Your task to perform on an android device: Clear the shopping cart on newegg. Search for "acer predator" on newegg, select the first entry, add it to the cart, then select checkout. Image 0: 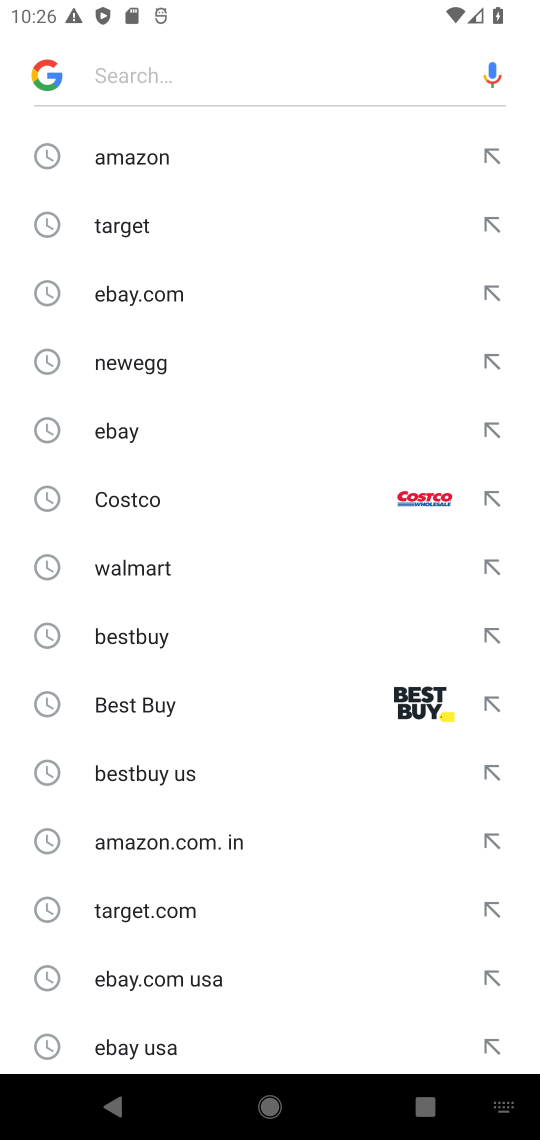
Step 0: press home button
Your task to perform on an android device: Clear the shopping cart on newegg. Search for "acer predator" on newegg, select the first entry, add it to the cart, then select checkout. Image 1: 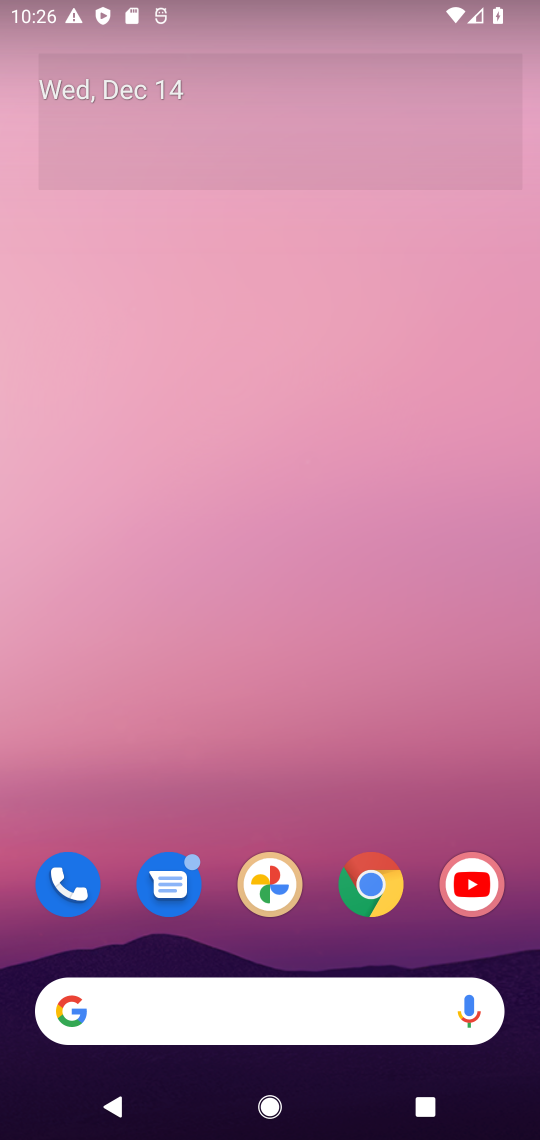
Step 1: click (389, 876)
Your task to perform on an android device: Clear the shopping cart on newegg. Search for "acer predator" on newegg, select the first entry, add it to the cart, then select checkout. Image 2: 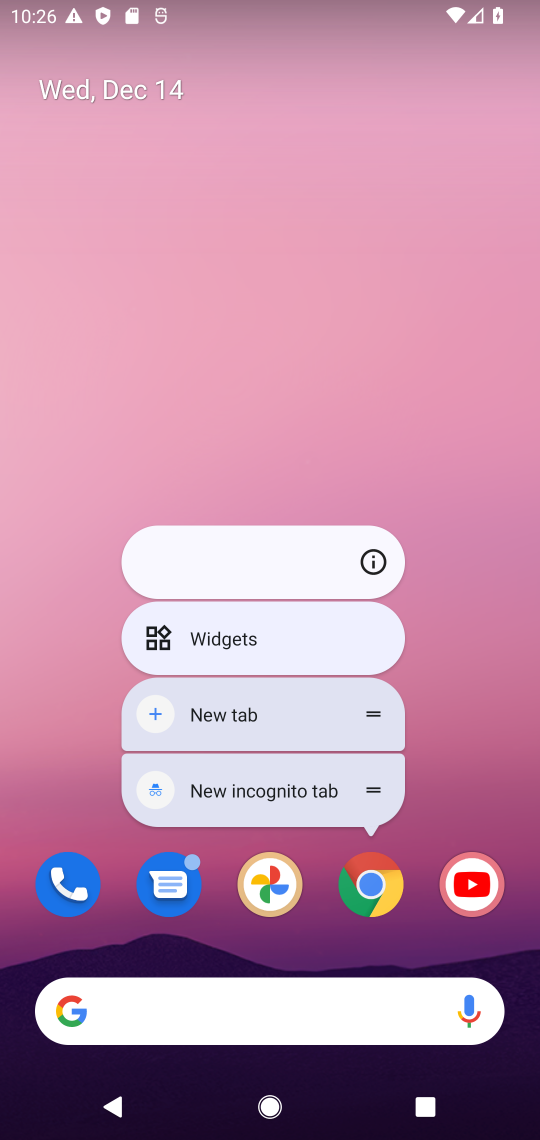
Step 2: click (369, 880)
Your task to perform on an android device: Clear the shopping cart on newegg. Search for "acer predator" on newegg, select the first entry, add it to the cart, then select checkout. Image 3: 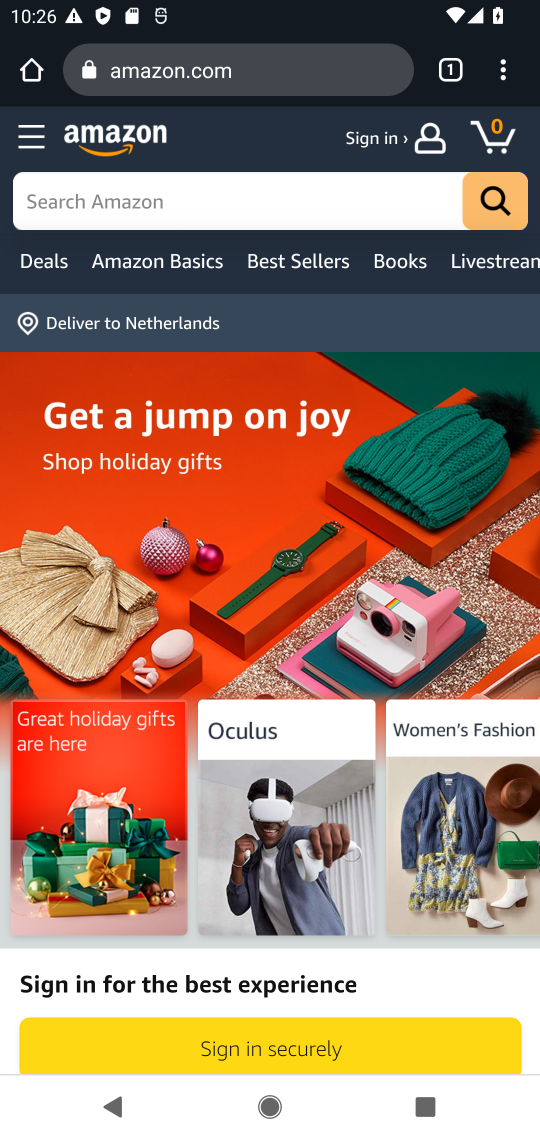
Step 3: click (287, 88)
Your task to perform on an android device: Clear the shopping cart on newegg. Search for "acer predator" on newegg, select the first entry, add it to the cart, then select checkout. Image 4: 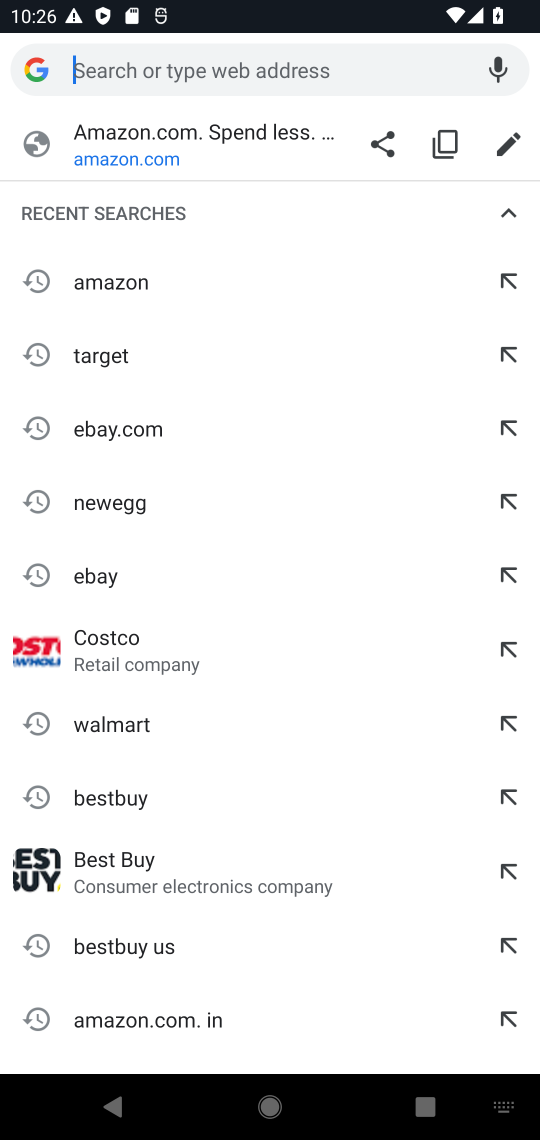
Step 4: press enter
Your task to perform on an android device: Clear the shopping cart on newegg. Search for "acer predator" on newegg, select the first entry, add it to the cart, then select checkout. Image 5: 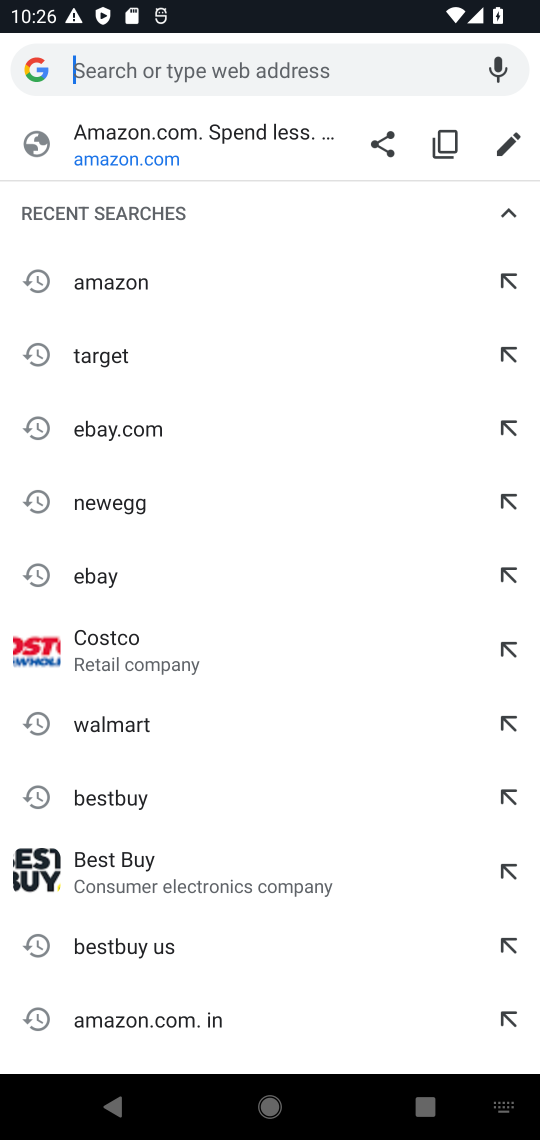
Step 5: type "newegg"
Your task to perform on an android device: Clear the shopping cart on newegg. Search for "acer predator" on newegg, select the first entry, add it to the cart, then select checkout. Image 6: 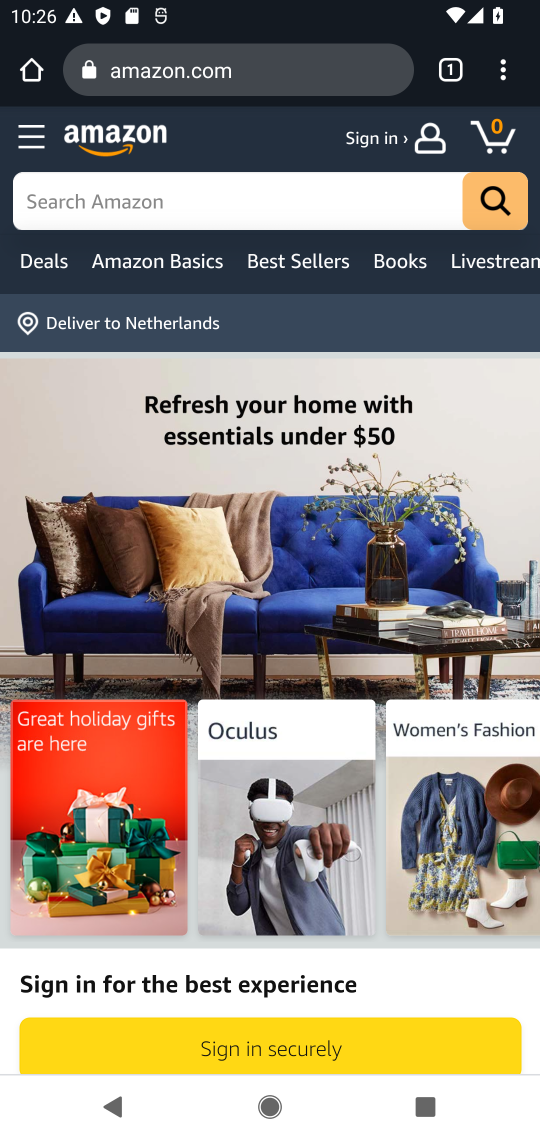
Step 6: click (31, 71)
Your task to perform on an android device: Clear the shopping cart on newegg. Search for "acer predator" on newegg, select the first entry, add it to the cart, then select checkout. Image 7: 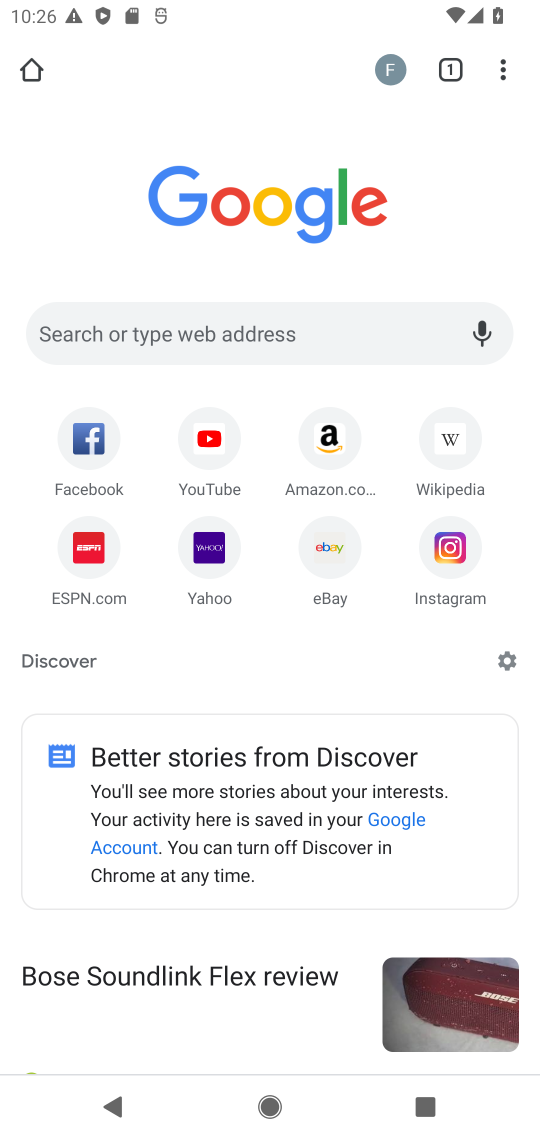
Step 7: click (363, 352)
Your task to perform on an android device: Clear the shopping cart on newegg. Search for "acer predator" on newegg, select the first entry, add it to the cart, then select checkout. Image 8: 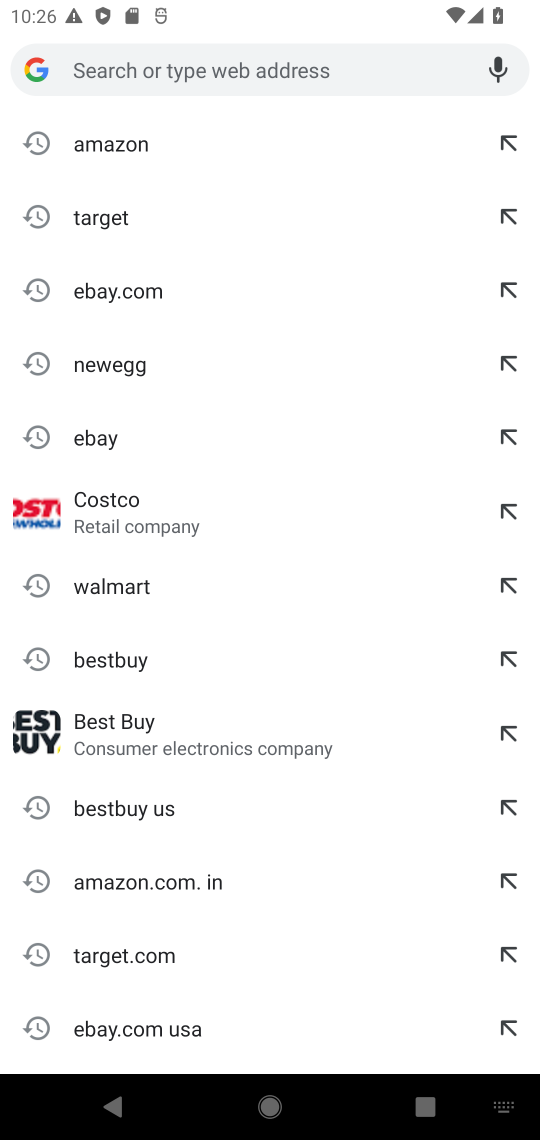
Step 8: click (126, 369)
Your task to perform on an android device: Clear the shopping cart on newegg. Search for "acer predator" on newegg, select the first entry, add it to the cart, then select checkout. Image 9: 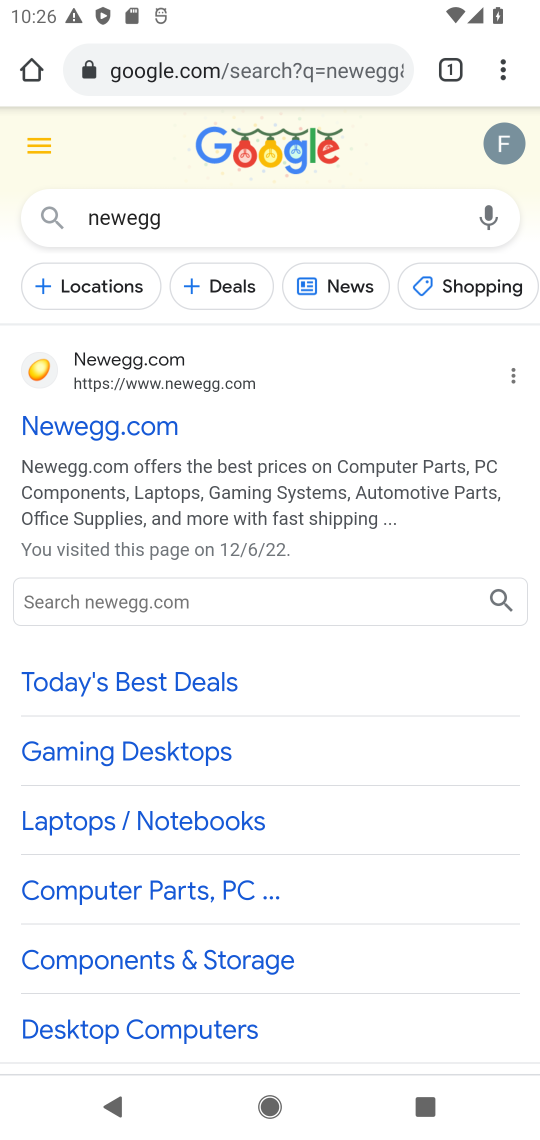
Step 9: click (177, 381)
Your task to perform on an android device: Clear the shopping cart on newegg. Search for "acer predator" on newegg, select the first entry, add it to the cart, then select checkout. Image 10: 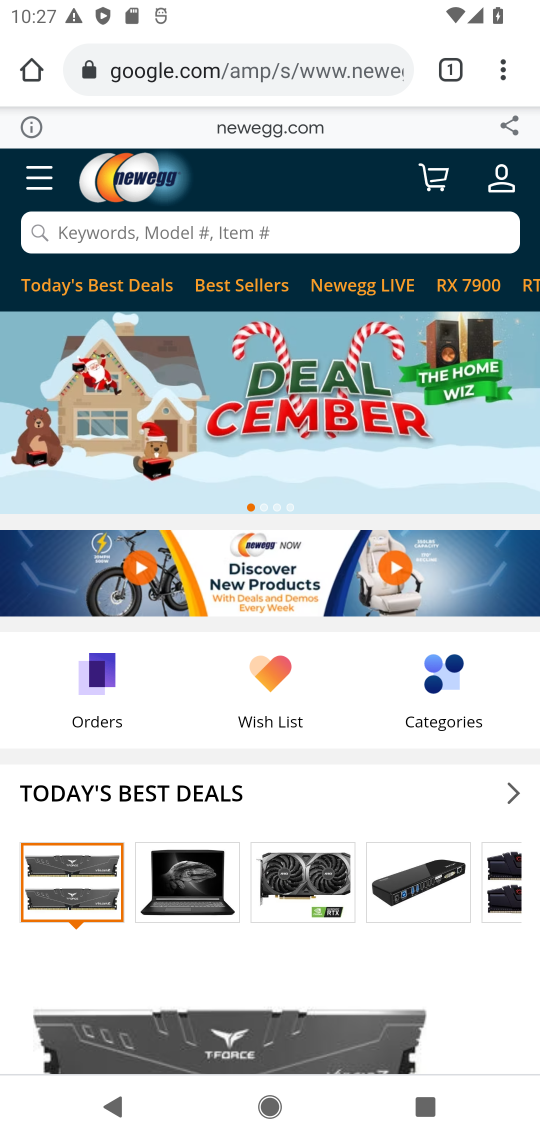
Step 10: click (428, 176)
Your task to perform on an android device: Clear the shopping cart on newegg. Search for "acer predator" on newegg, select the first entry, add it to the cart, then select checkout. Image 11: 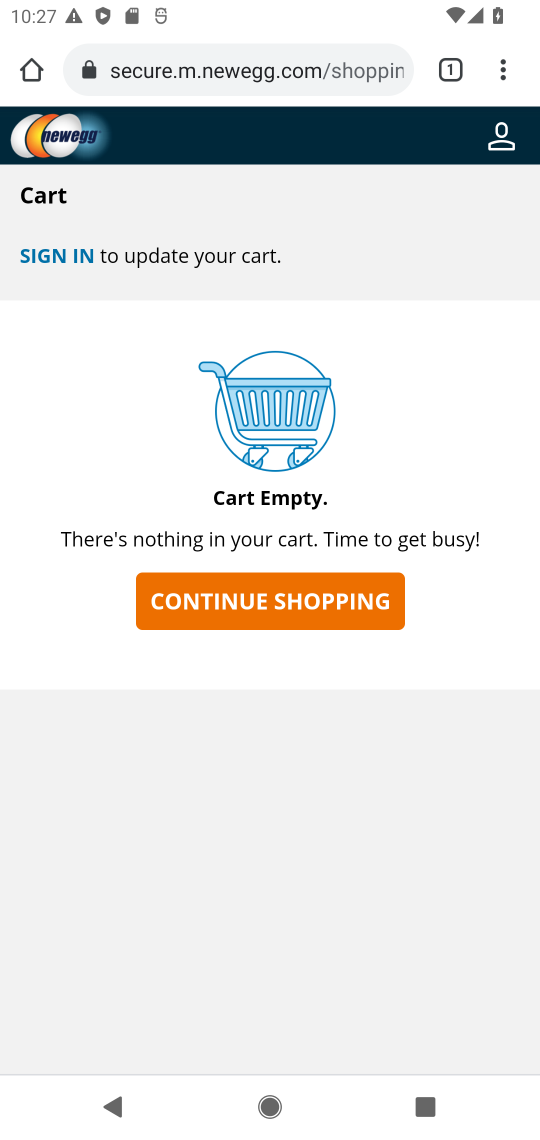
Step 11: press back button
Your task to perform on an android device: Clear the shopping cart on newegg. Search for "acer predator" on newegg, select the first entry, add it to the cart, then select checkout. Image 12: 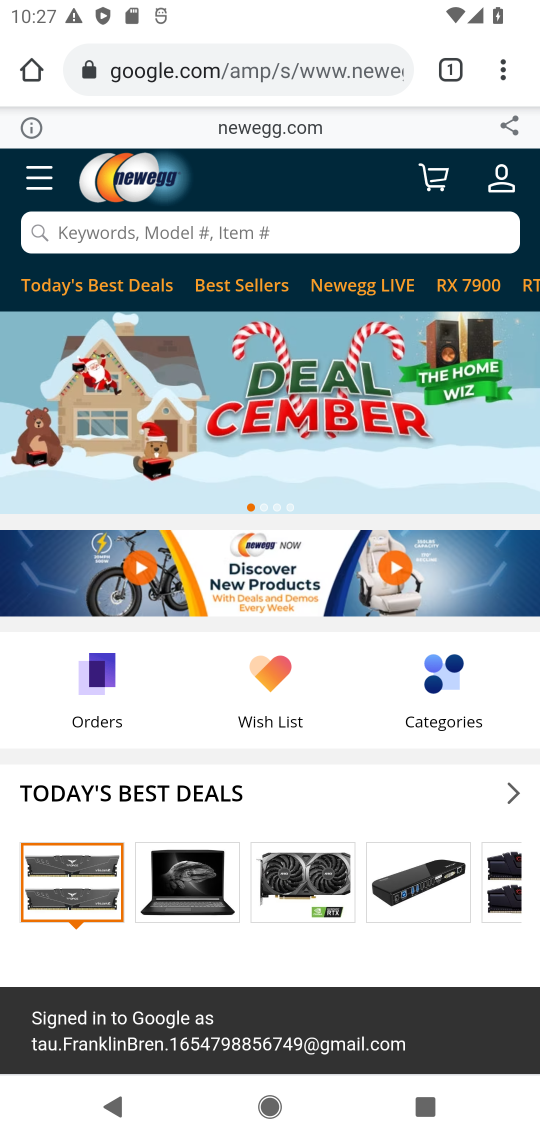
Step 12: click (334, 233)
Your task to perform on an android device: Clear the shopping cart on newegg. Search for "acer predator" on newegg, select the first entry, add it to the cart, then select checkout. Image 13: 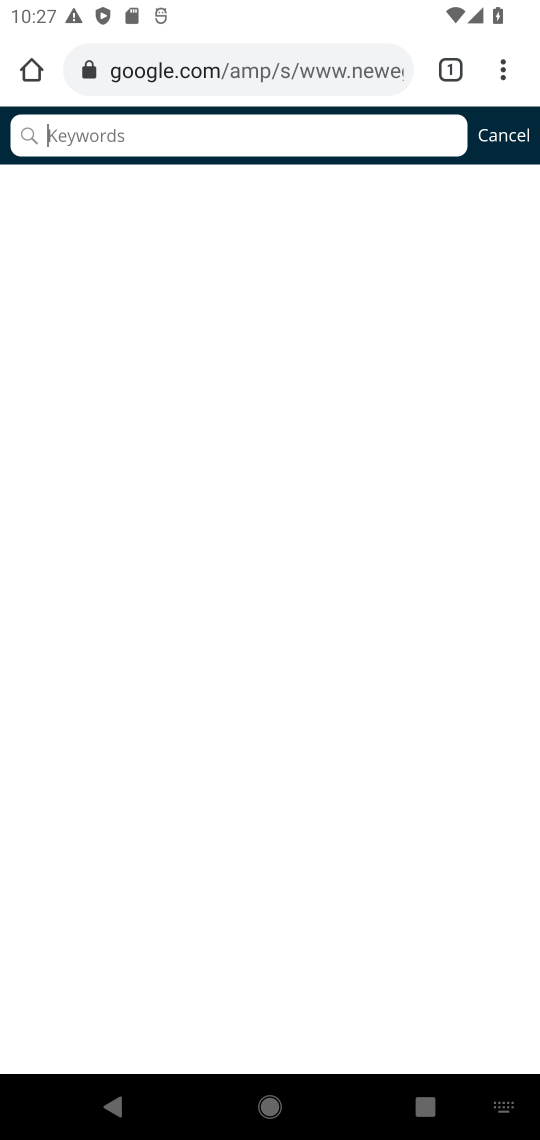
Step 13: press enter
Your task to perform on an android device: Clear the shopping cart on newegg. Search for "acer predator" on newegg, select the first entry, add it to the cart, then select checkout. Image 14: 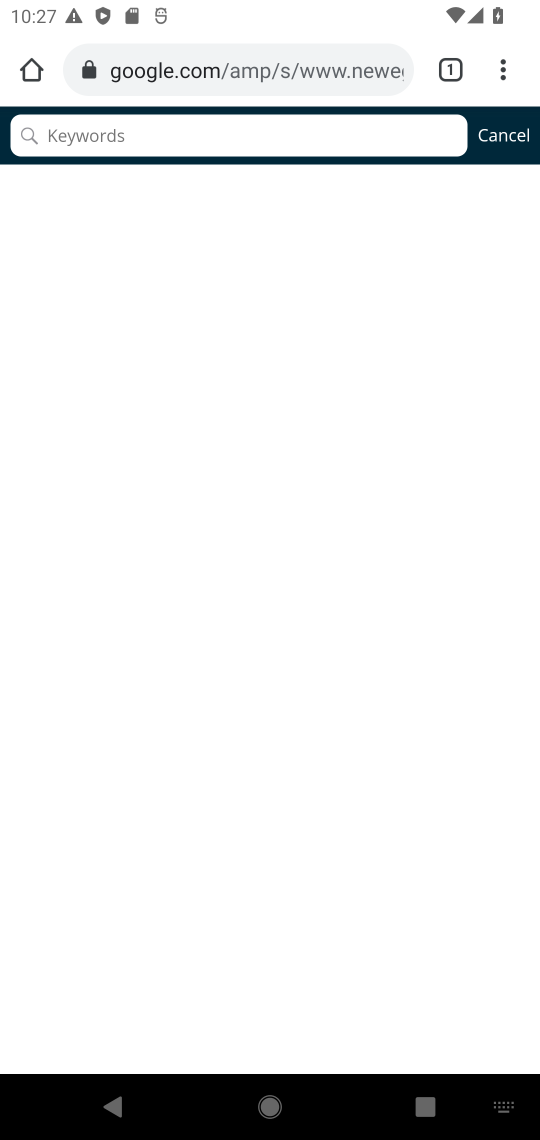
Step 14: type "acer predator"
Your task to perform on an android device: Clear the shopping cart on newegg. Search for "acer predator" on newegg, select the first entry, add it to the cart, then select checkout. Image 15: 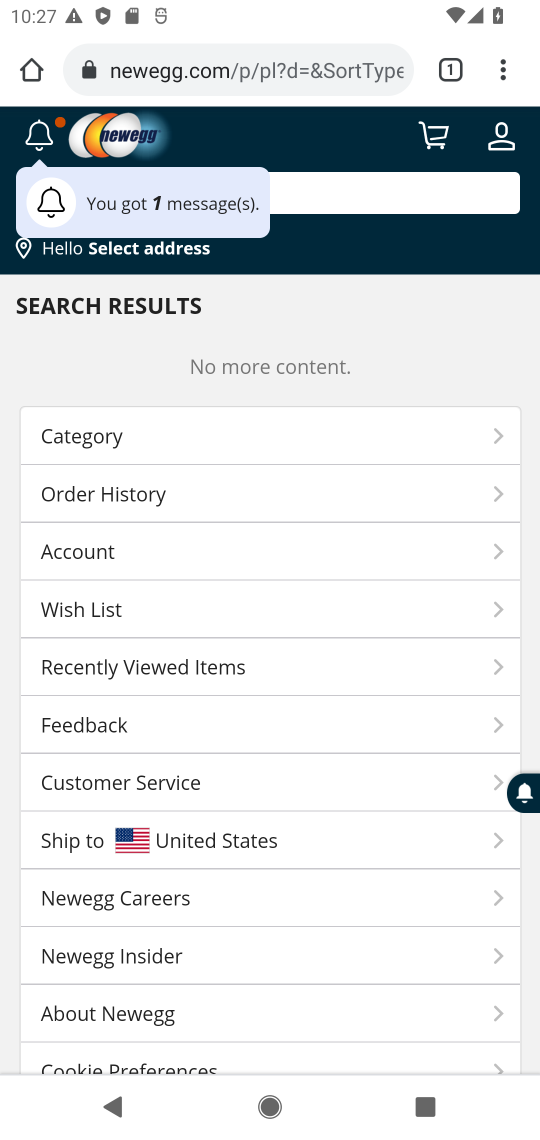
Step 15: click (376, 192)
Your task to perform on an android device: Clear the shopping cart on newegg. Search for "acer predator" on newegg, select the first entry, add it to the cart, then select checkout. Image 16: 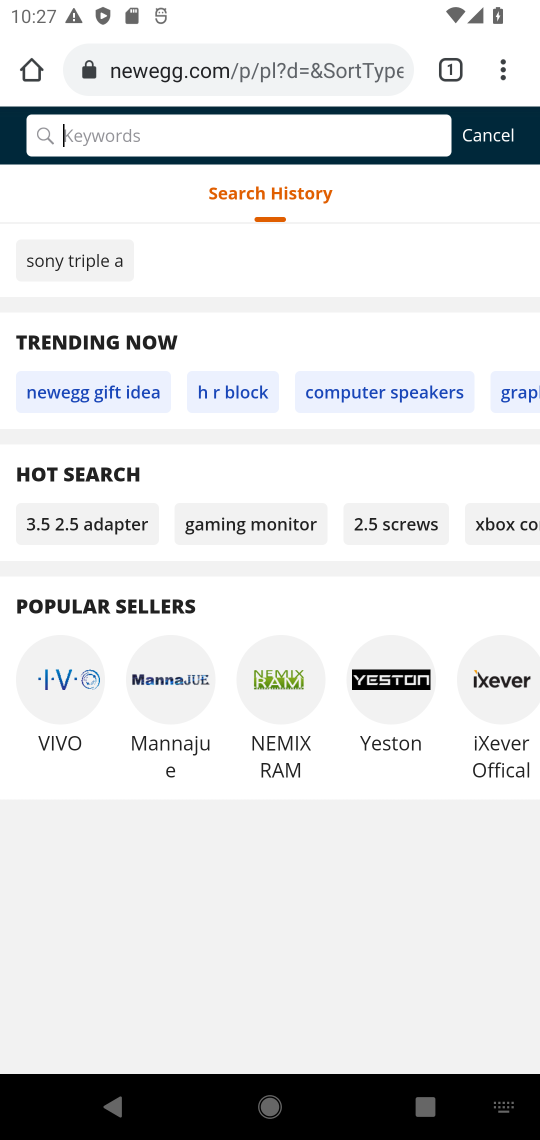
Step 16: press enter
Your task to perform on an android device: Clear the shopping cart on newegg. Search for "acer predator" on newegg, select the first entry, add it to the cart, then select checkout. Image 17: 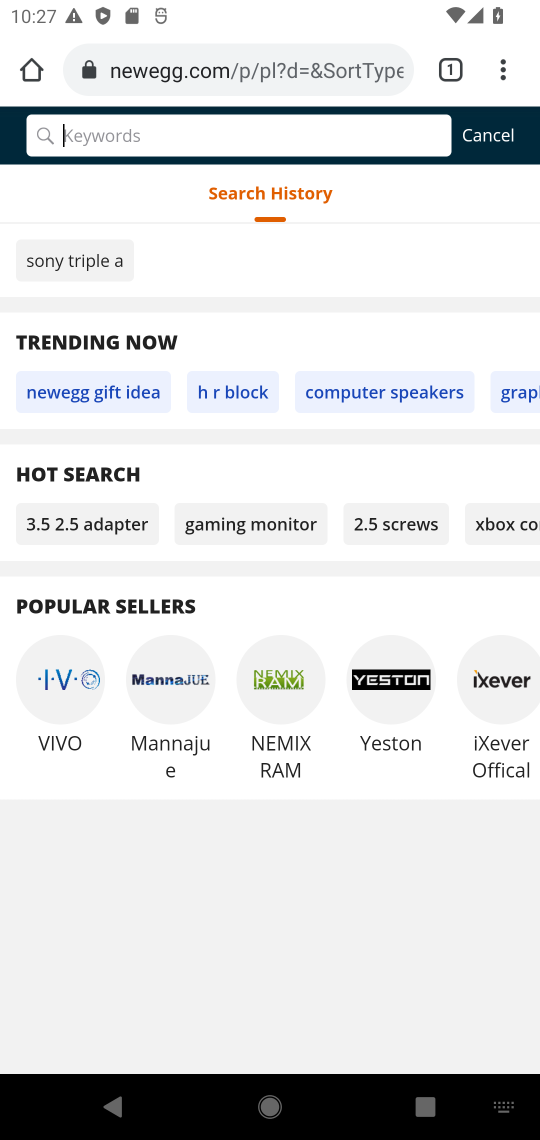
Step 17: type "acer predator"
Your task to perform on an android device: Clear the shopping cart on newegg. Search for "acer predator" on newegg, select the first entry, add it to the cart, then select checkout. Image 18: 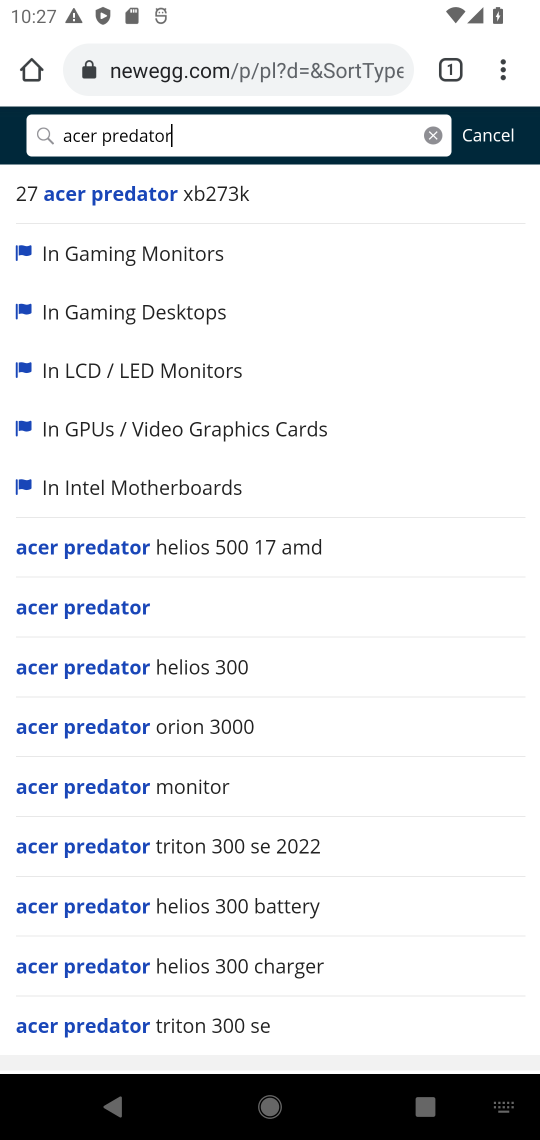
Step 18: click (123, 605)
Your task to perform on an android device: Clear the shopping cart on newegg. Search for "acer predator" on newegg, select the first entry, add it to the cart, then select checkout. Image 19: 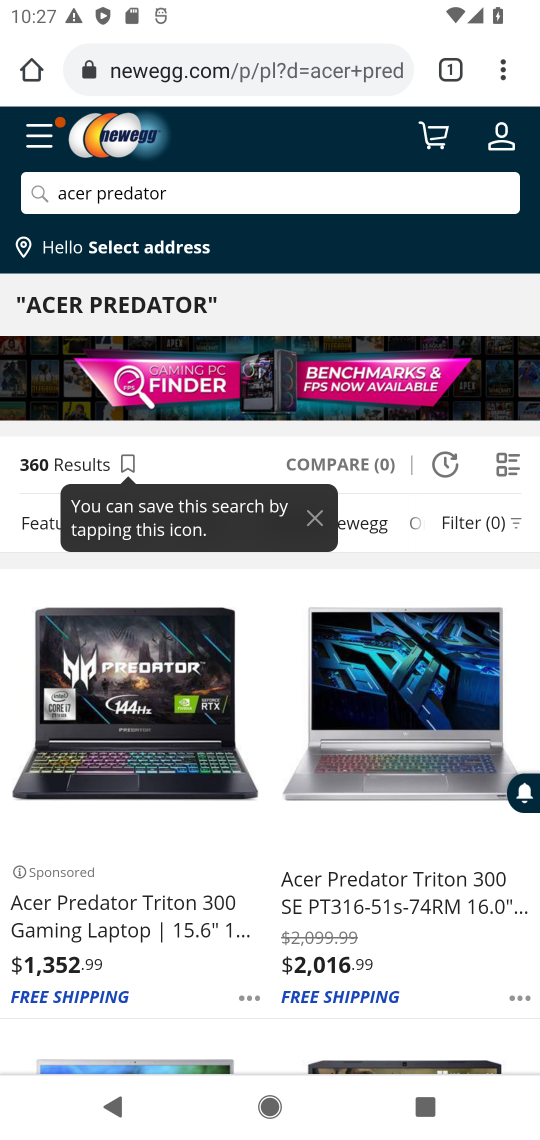
Step 19: click (143, 687)
Your task to perform on an android device: Clear the shopping cart on newegg. Search for "acer predator" on newegg, select the first entry, add it to the cart, then select checkout. Image 20: 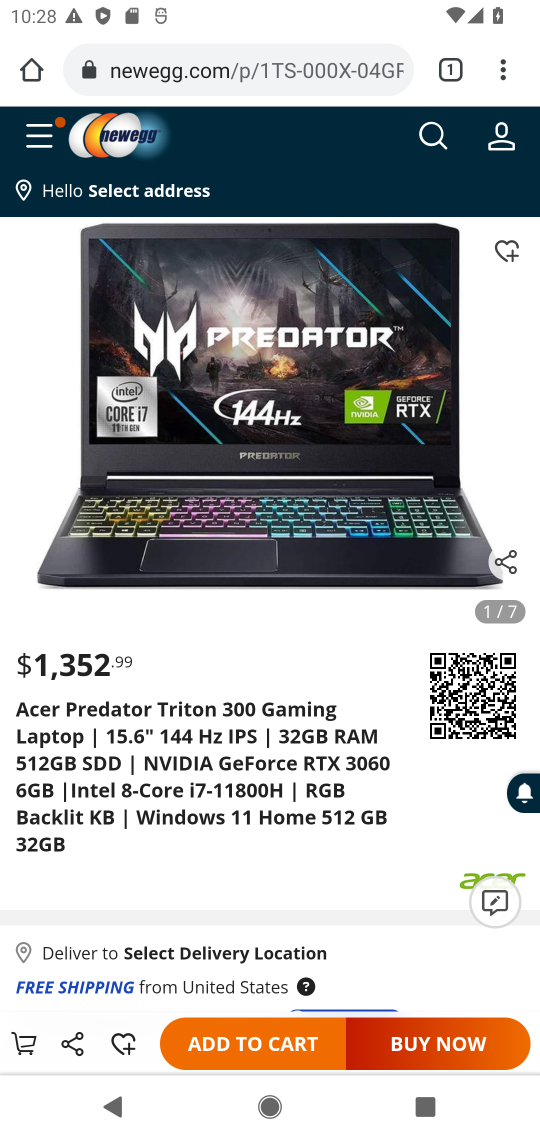
Step 20: drag from (226, 872) to (204, 704)
Your task to perform on an android device: Clear the shopping cart on newegg. Search for "acer predator" on newegg, select the first entry, add it to the cart, then select checkout. Image 21: 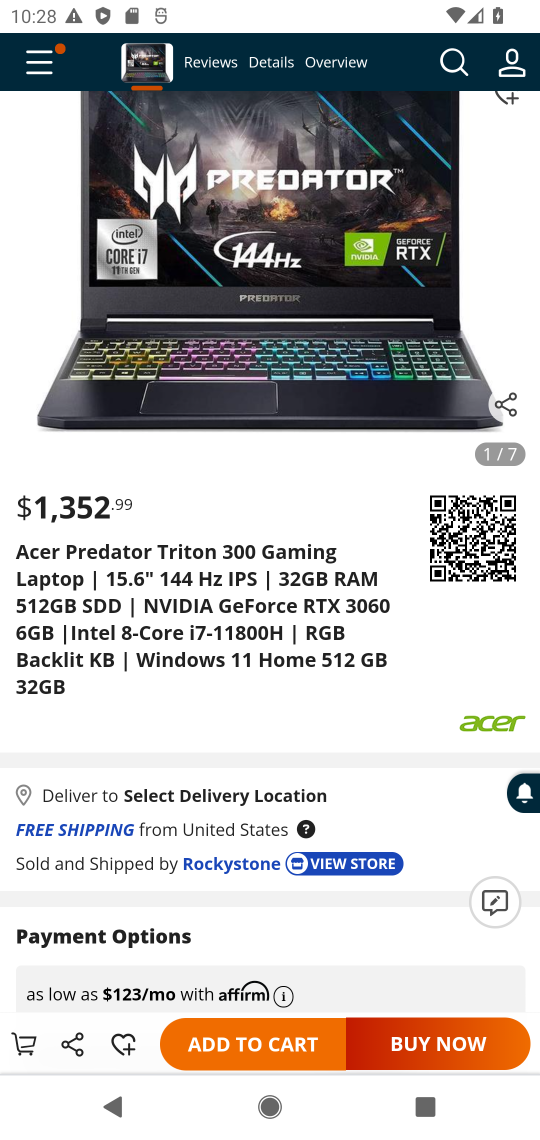
Step 21: click (256, 1040)
Your task to perform on an android device: Clear the shopping cart on newegg. Search for "acer predator" on newegg, select the first entry, add it to the cart, then select checkout. Image 22: 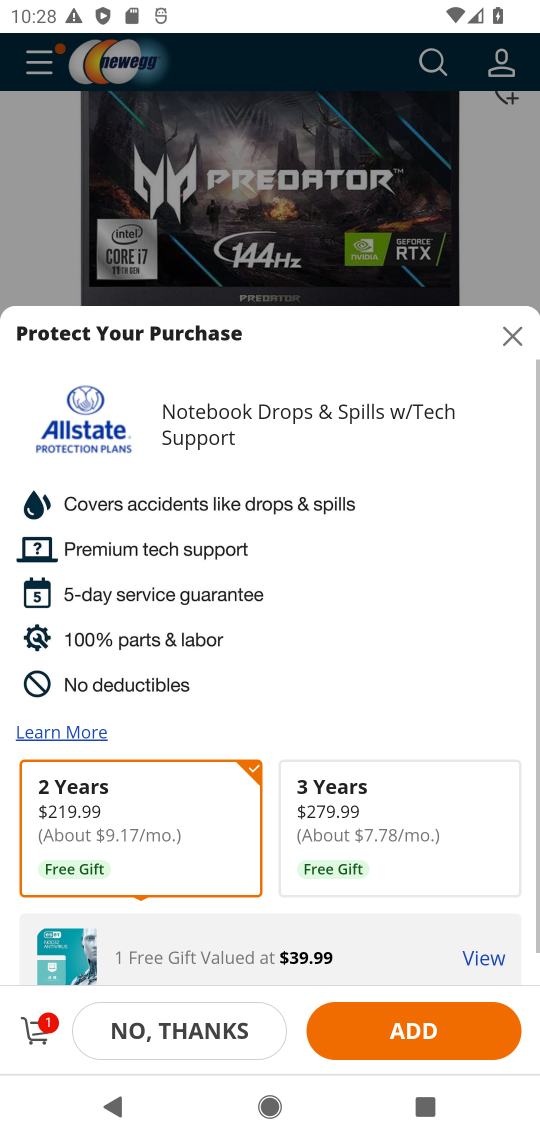
Step 22: click (32, 1029)
Your task to perform on an android device: Clear the shopping cart on newegg. Search for "acer predator" on newegg, select the first entry, add it to the cart, then select checkout. Image 23: 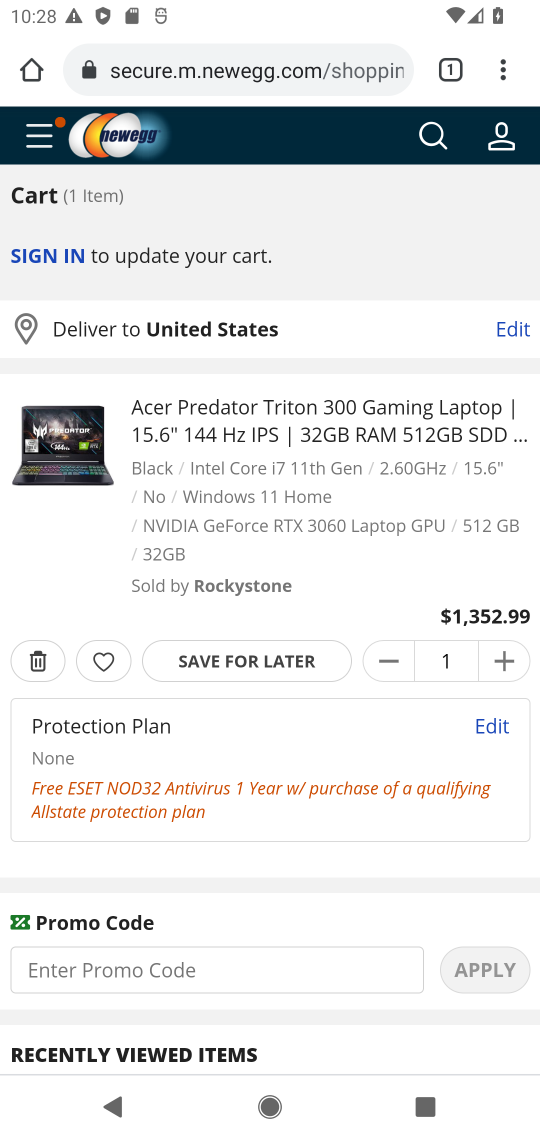
Step 23: drag from (317, 833) to (342, 510)
Your task to perform on an android device: Clear the shopping cart on newegg. Search for "acer predator" on newegg, select the first entry, add it to the cart, then select checkout. Image 24: 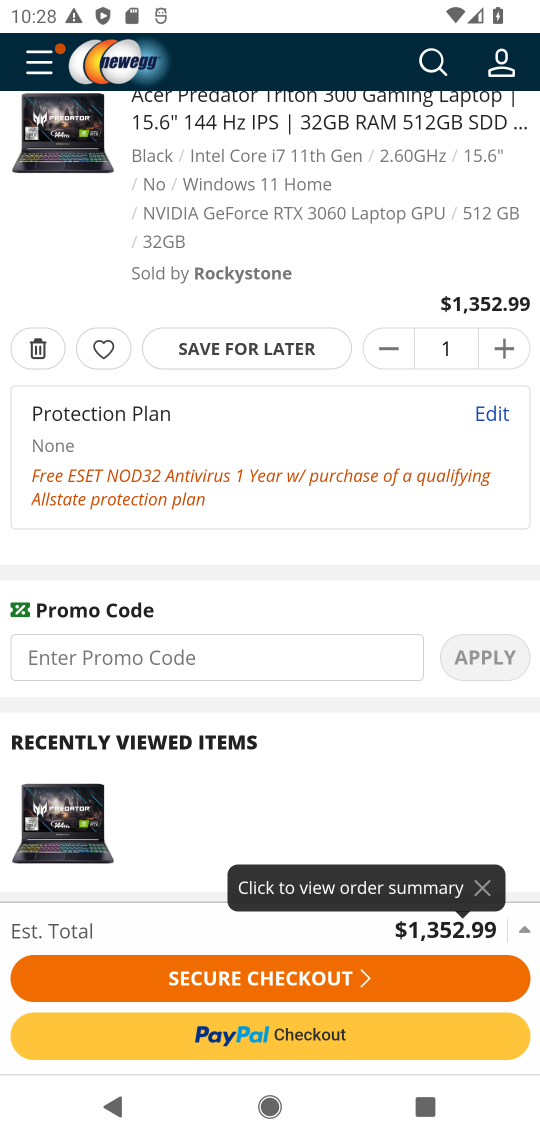
Step 24: click (236, 977)
Your task to perform on an android device: Clear the shopping cart on newegg. Search for "acer predator" on newegg, select the first entry, add it to the cart, then select checkout. Image 25: 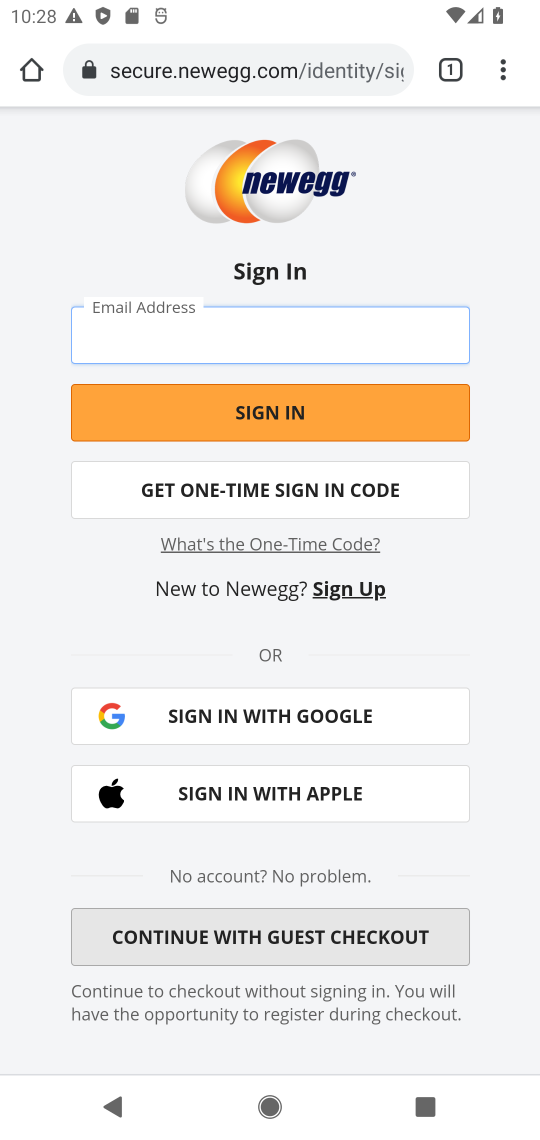
Step 25: task complete